Your task to perform on an android device: Show me recent news Image 0: 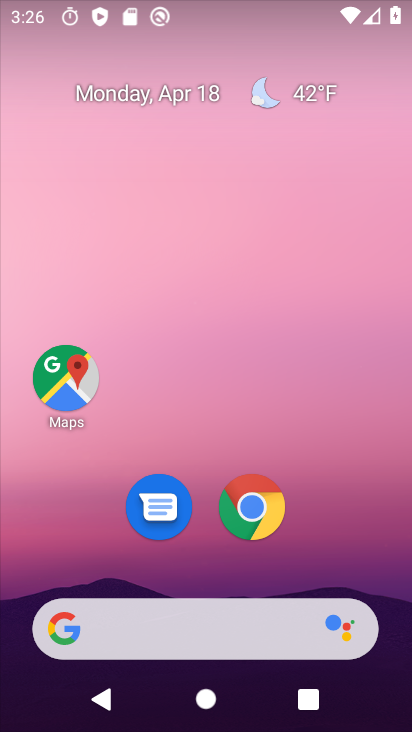
Step 0: click (210, 624)
Your task to perform on an android device: Show me recent news Image 1: 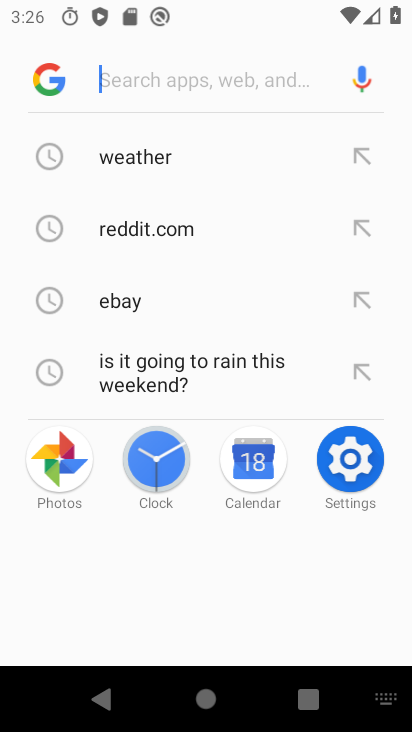
Step 1: click (142, 82)
Your task to perform on an android device: Show me recent news Image 2: 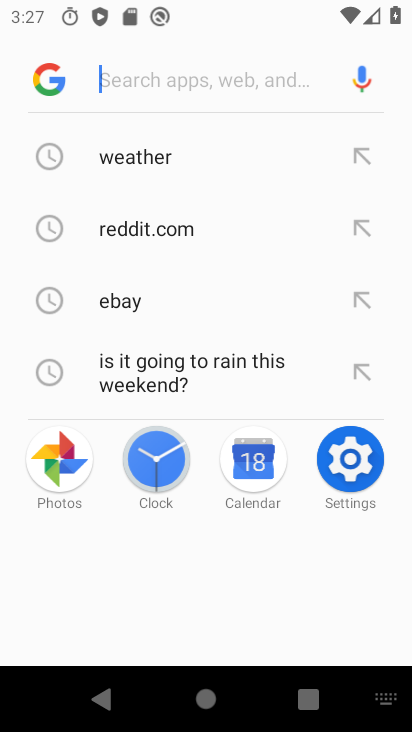
Step 2: type "recent news"
Your task to perform on an android device: Show me recent news Image 3: 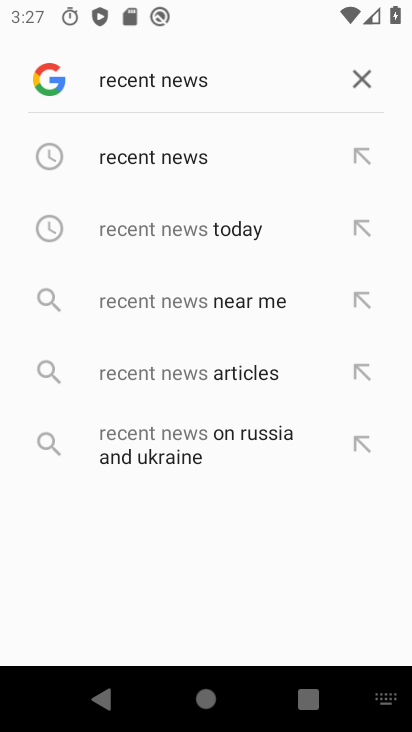
Step 3: click (247, 161)
Your task to perform on an android device: Show me recent news Image 4: 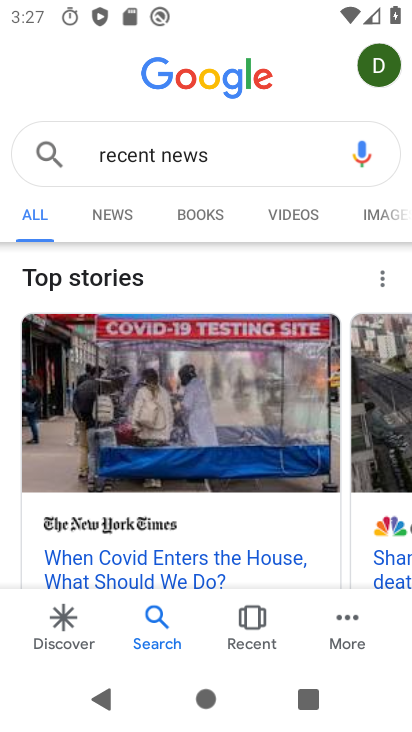
Step 4: click (114, 212)
Your task to perform on an android device: Show me recent news Image 5: 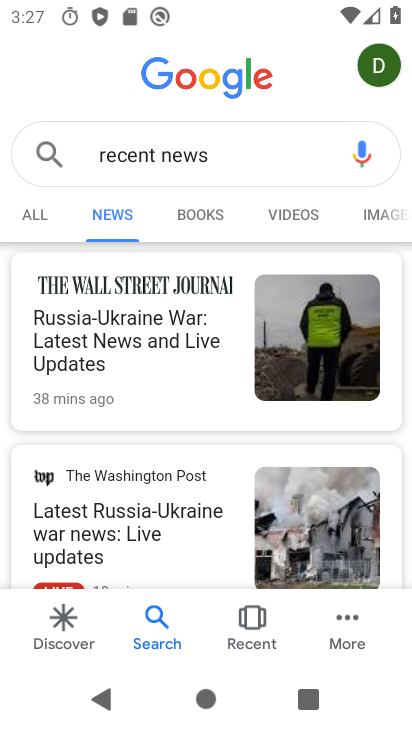
Step 5: task complete